Your task to perform on an android device: Go to internet settings Image 0: 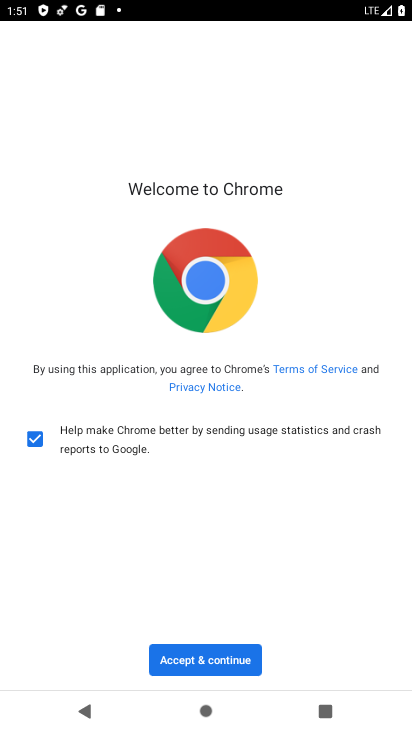
Step 0: press home button
Your task to perform on an android device: Go to internet settings Image 1: 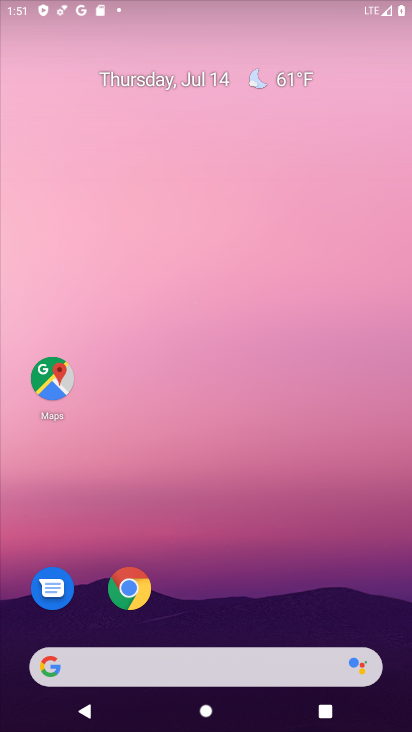
Step 1: drag from (260, 611) to (324, 128)
Your task to perform on an android device: Go to internet settings Image 2: 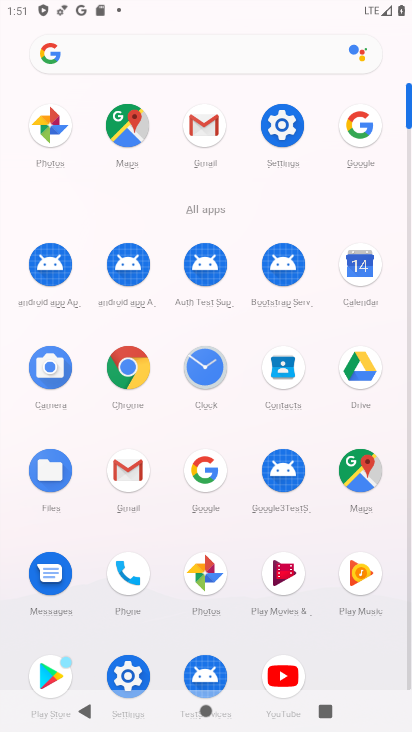
Step 2: click (286, 124)
Your task to perform on an android device: Go to internet settings Image 3: 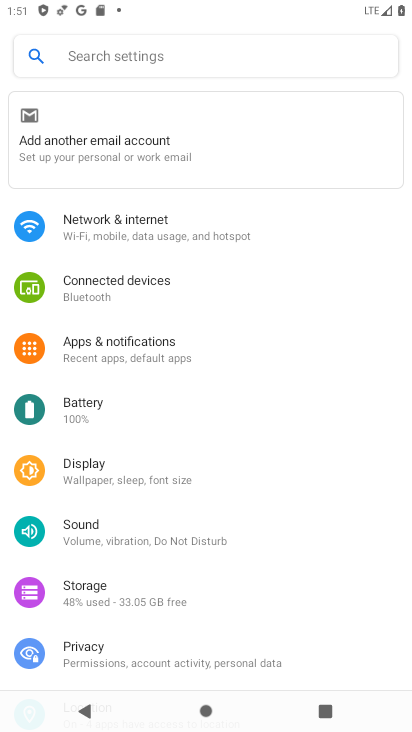
Step 3: click (139, 224)
Your task to perform on an android device: Go to internet settings Image 4: 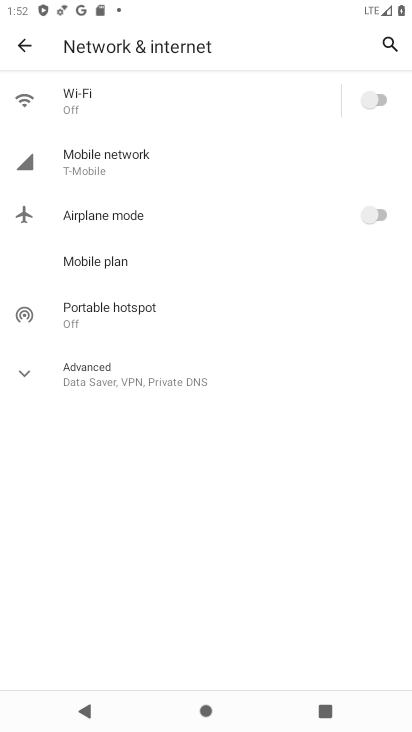
Step 4: click (87, 100)
Your task to perform on an android device: Go to internet settings Image 5: 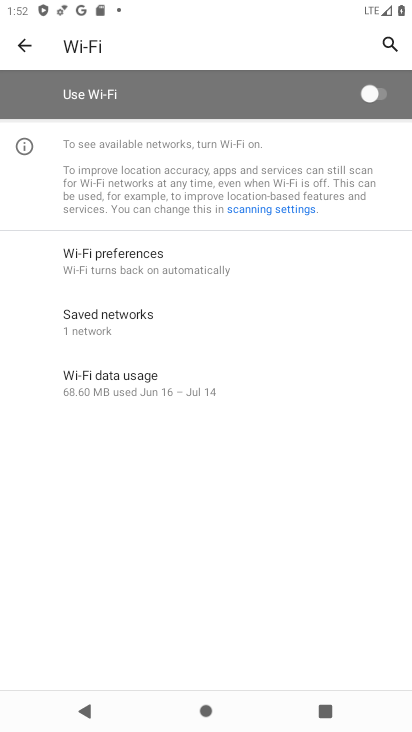
Step 5: click (378, 95)
Your task to perform on an android device: Go to internet settings Image 6: 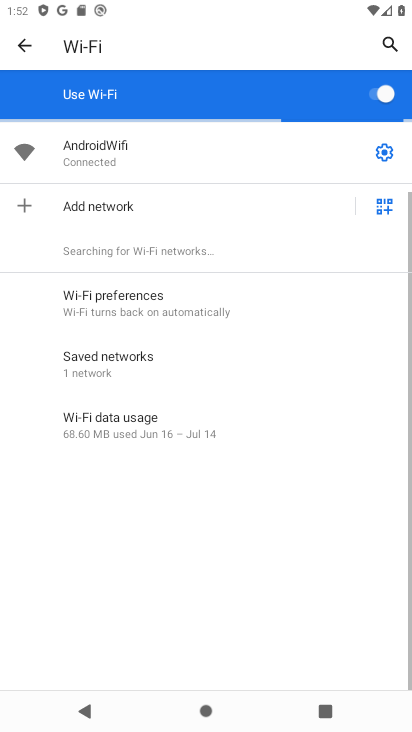
Step 6: click (328, 152)
Your task to perform on an android device: Go to internet settings Image 7: 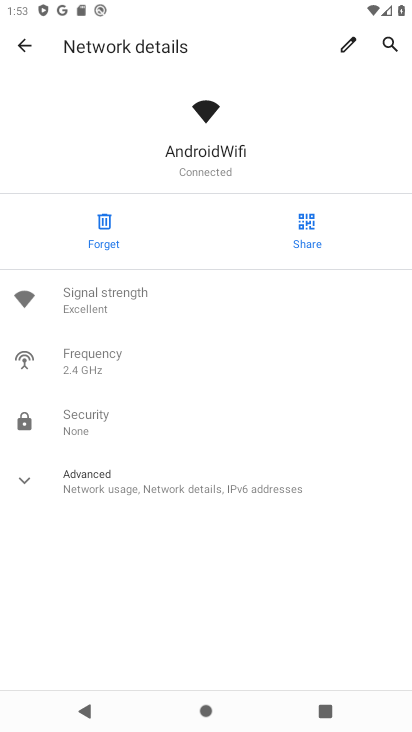
Step 7: task complete